Your task to perform on an android device: Go to wifi settings Image 0: 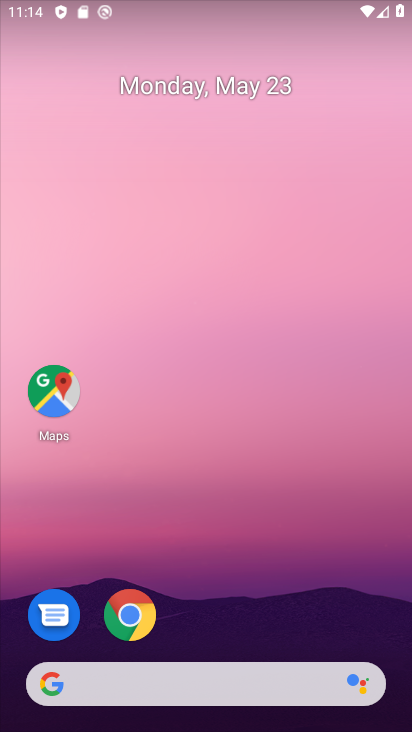
Step 0: drag from (177, 7) to (164, 574)
Your task to perform on an android device: Go to wifi settings Image 1: 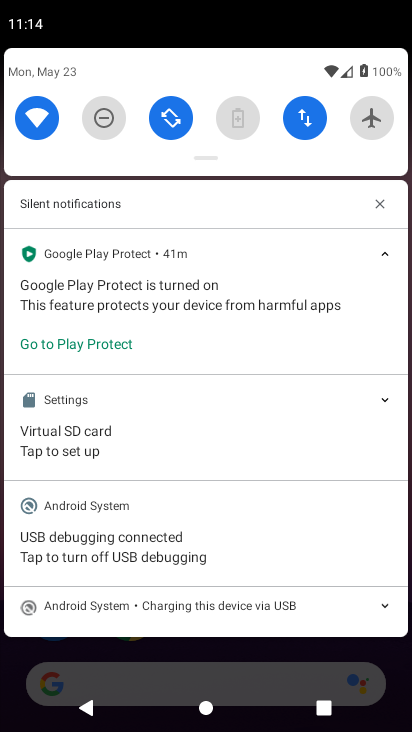
Step 1: click (45, 119)
Your task to perform on an android device: Go to wifi settings Image 2: 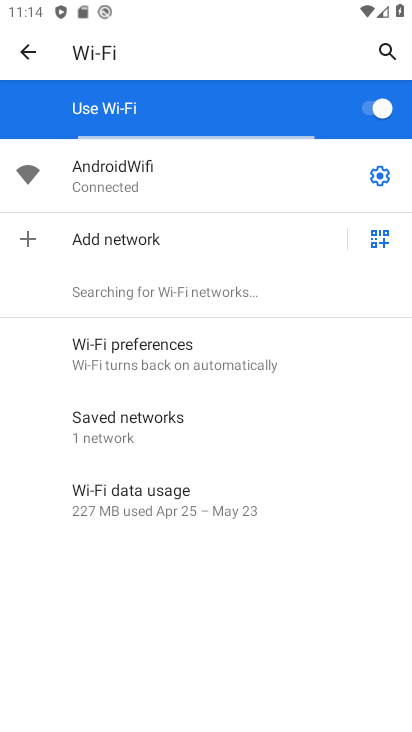
Step 2: task complete